Your task to perform on an android device: turn pop-ups off in chrome Image 0: 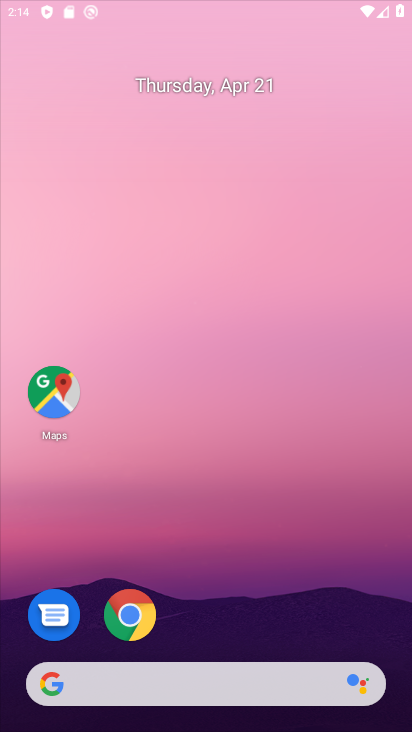
Step 0: click (331, 5)
Your task to perform on an android device: turn pop-ups off in chrome Image 1: 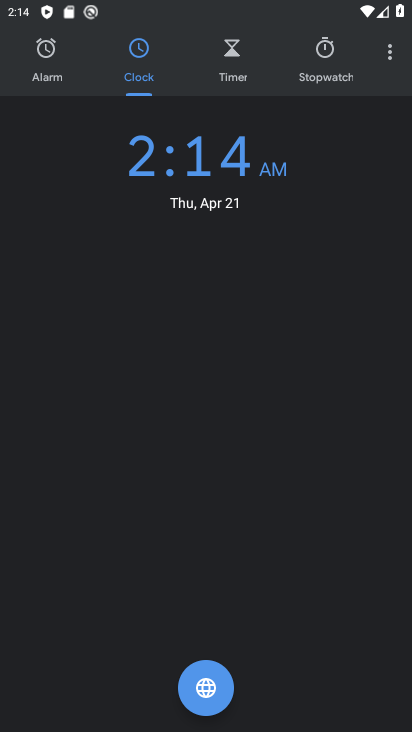
Step 1: press back button
Your task to perform on an android device: turn pop-ups off in chrome Image 2: 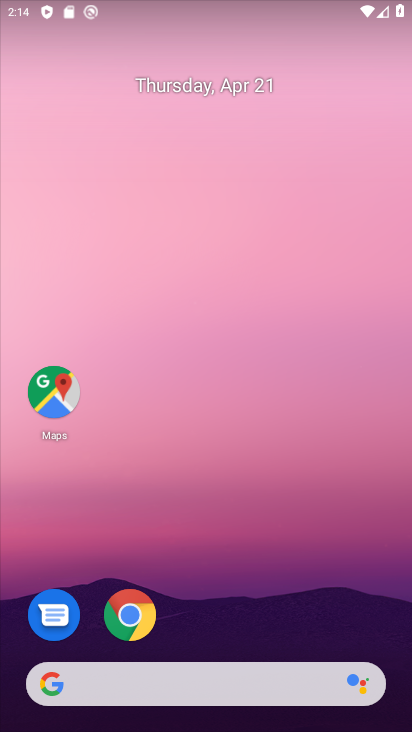
Step 2: click (132, 619)
Your task to perform on an android device: turn pop-ups off in chrome Image 3: 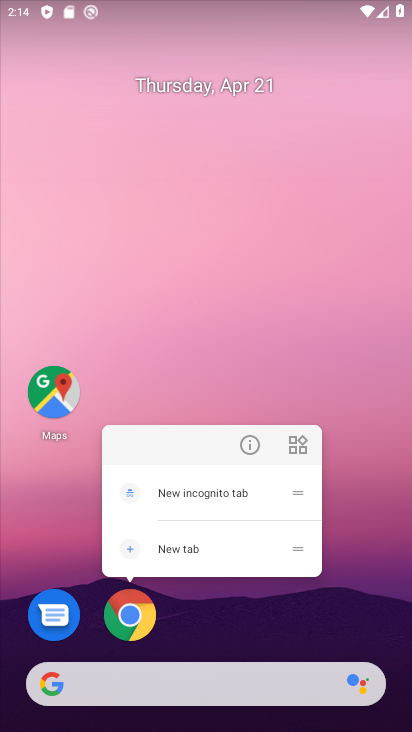
Step 3: click (126, 620)
Your task to perform on an android device: turn pop-ups off in chrome Image 4: 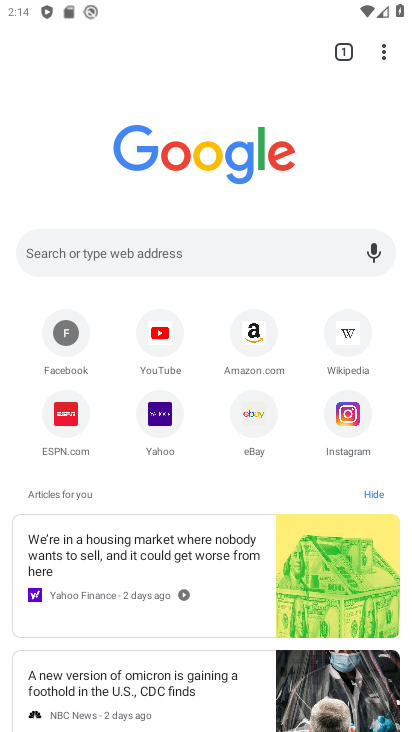
Step 4: drag from (383, 54) to (219, 433)
Your task to perform on an android device: turn pop-ups off in chrome Image 5: 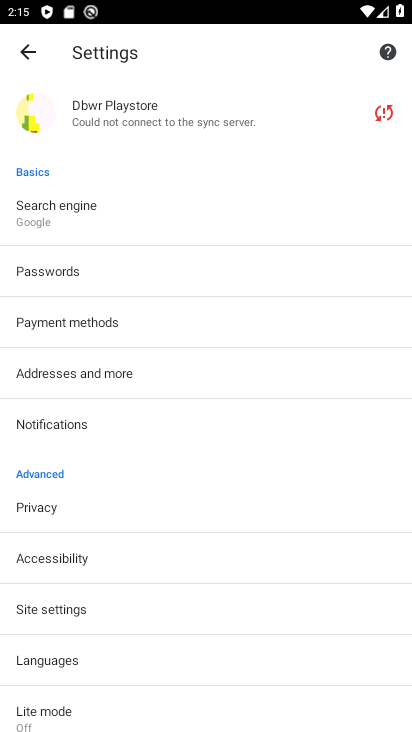
Step 5: click (61, 614)
Your task to perform on an android device: turn pop-ups off in chrome Image 6: 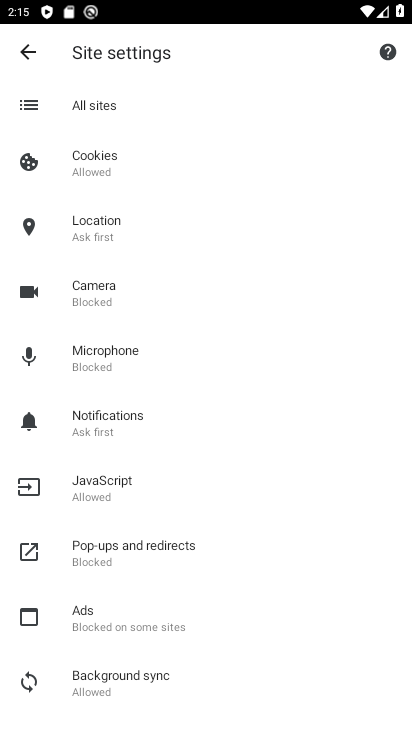
Step 6: click (133, 548)
Your task to perform on an android device: turn pop-ups off in chrome Image 7: 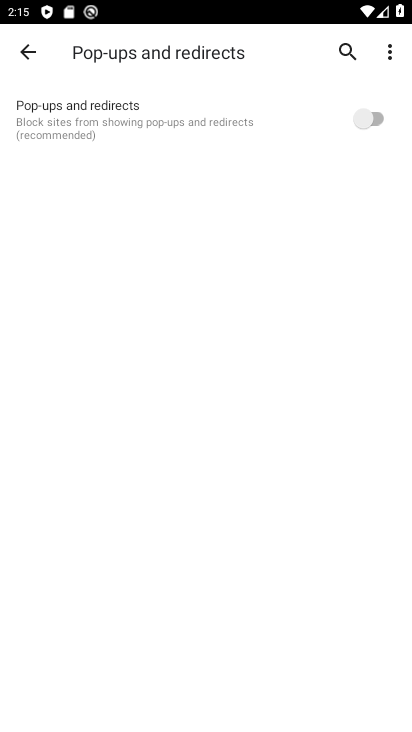
Step 7: task complete